Your task to perform on an android device: turn off airplane mode Image 0: 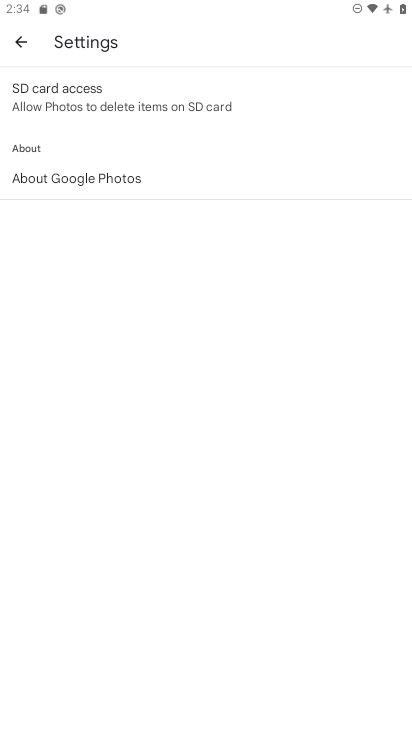
Step 0: press home button
Your task to perform on an android device: turn off airplane mode Image 1: 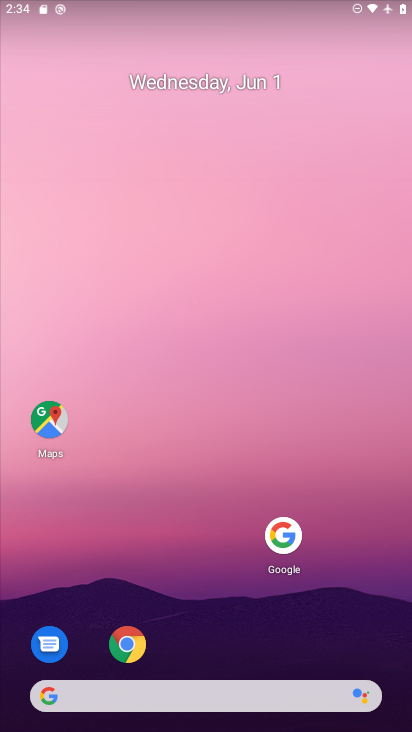
Step 1: drag from (176, 692) to (325, 71)
Your task to perform on an android device: turn off airplane mode Image 2: 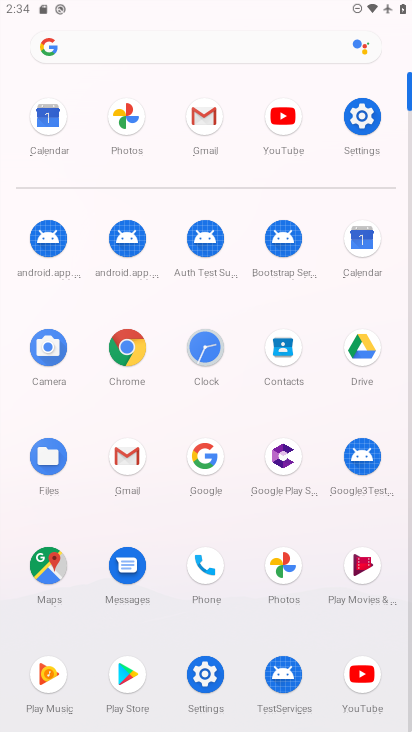
Step 2: click (369, 124)
Your task to perform on an android device: turn off airplane mode Image 3: 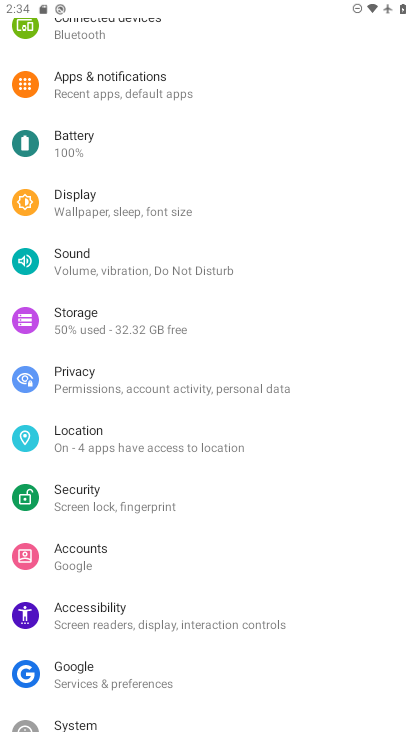
Step 3: drag from (228, 113) to (83, 522)
Your task to perform on an android device: turn off airplane mode Image 4: 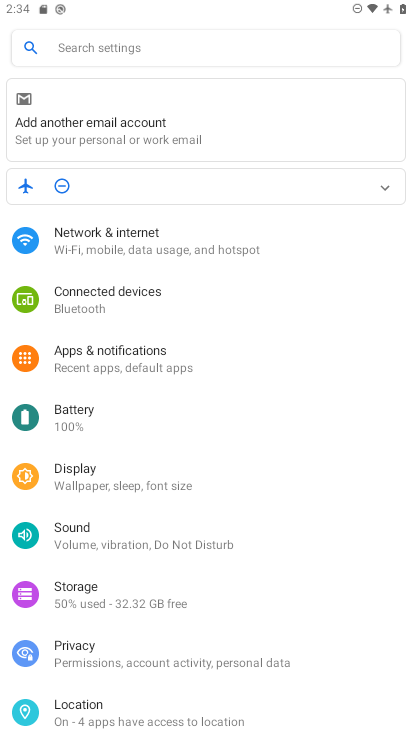
Step 4: click (147, 233)
Your task to perform on an android device: turn off airplane mode Image 5: 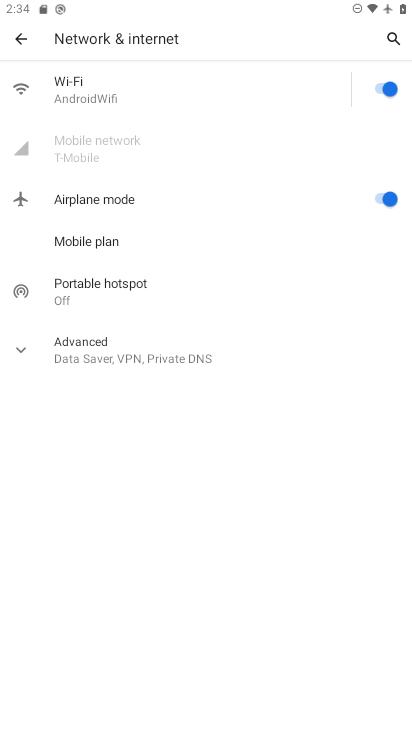
Step 5: click (379, 201)
Your task to perform on an android device: turn off airplane mode Image 6: 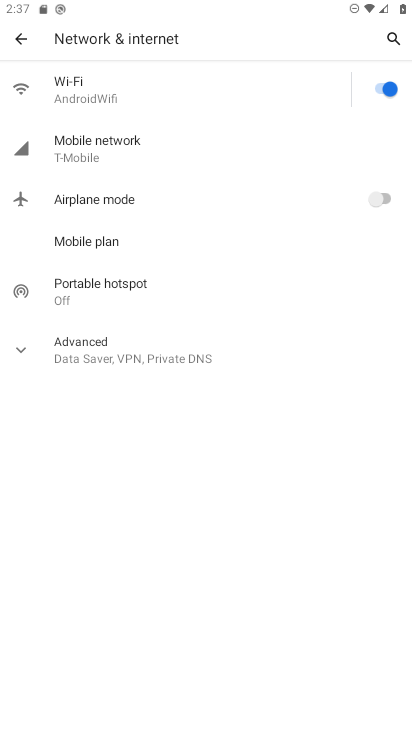
Step 6: task complete